Your task to perform on an android device: Open maps Image 0: 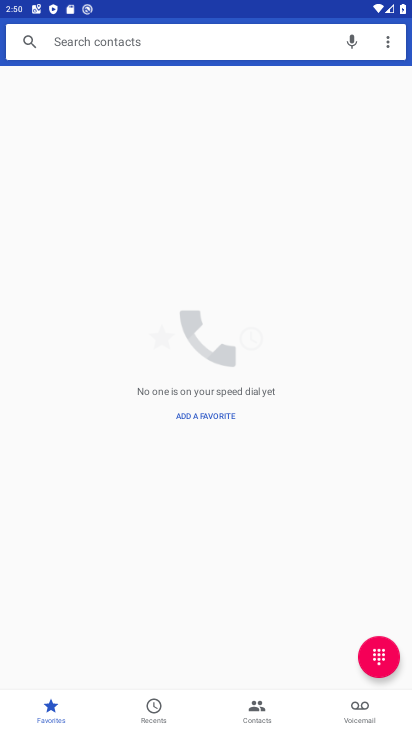
Step 0: press home button
Your task to perform on an android device: Open maps Image 1: 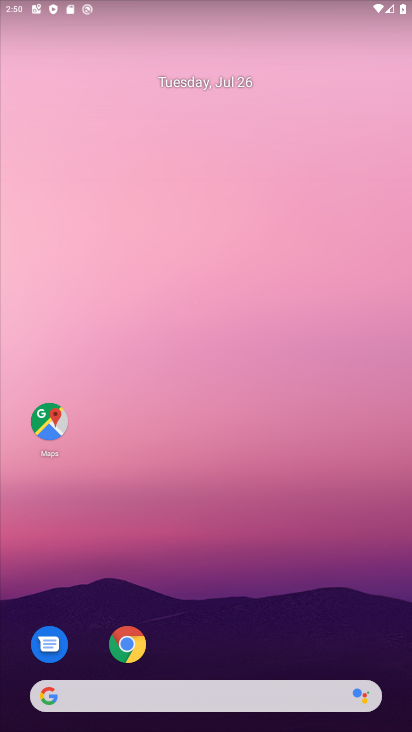
Step 1: drag from (204, 623) to (185, 128)
Your task to perform on an android device: Open maps Image 2: 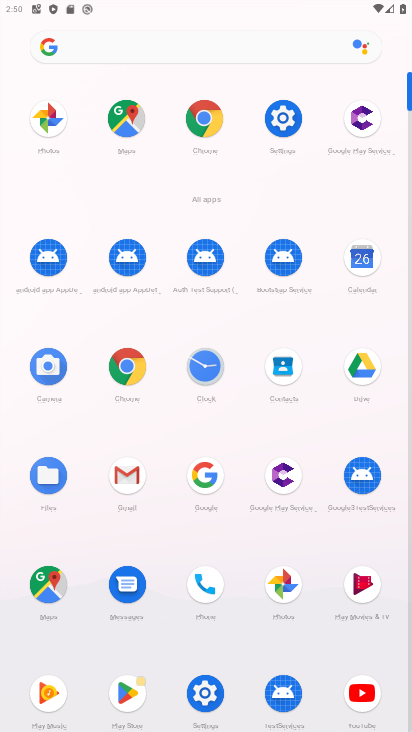
Step 2: click (57, 591)
Your task to perform on an android device: Open maps Image 3: 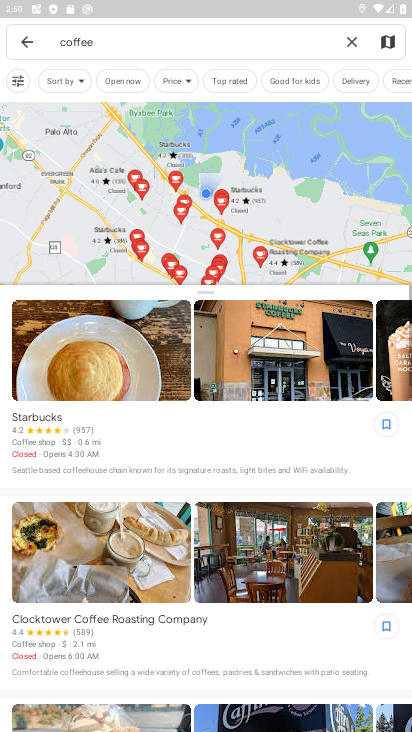
Step 3: click (352, 47)
Your task to perform on an android device: Open maps Image 4: 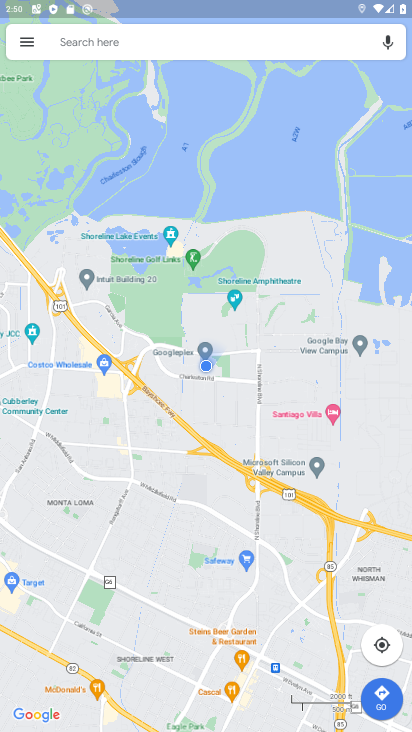
Step 4: click (107, 41)
Your task to perform on an android device: Open maps Image 5: 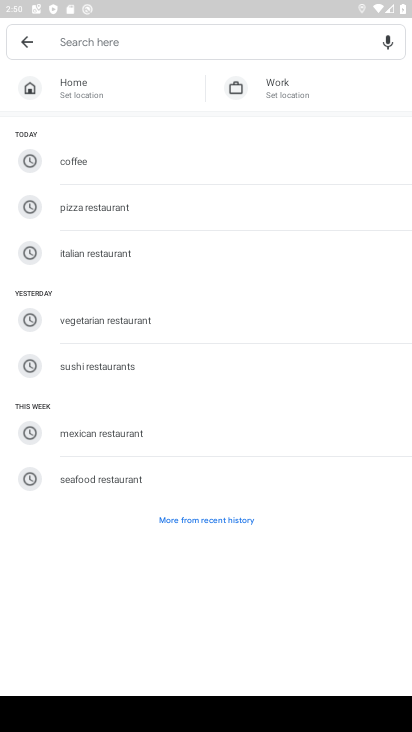
Step 5: click (24, 41)
Your task to perform on an android device: Open maps Image 6: 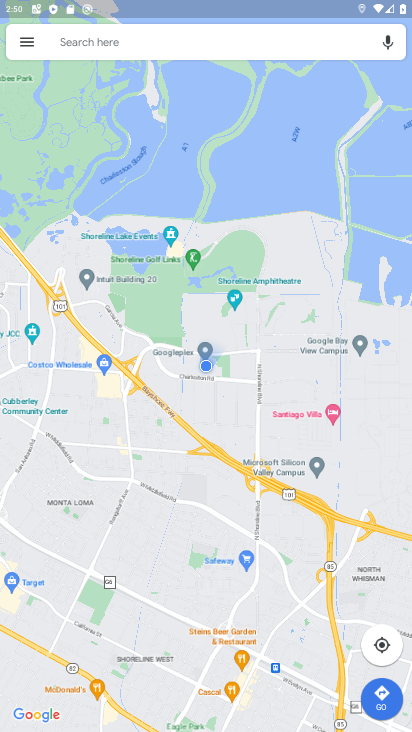
Step 6: task complete